Your task to perform on an android device: Open accessibility settings Image 0: 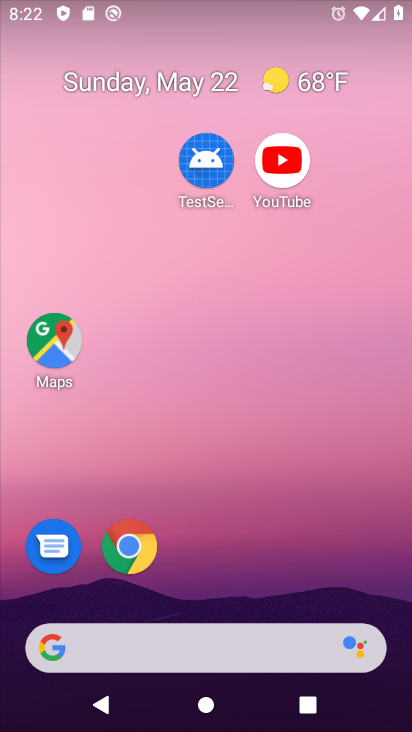
Step 0: drag from (290, 688) to (259, 265)
Your task to perform on an android device: Open accessibility settings Image 1: 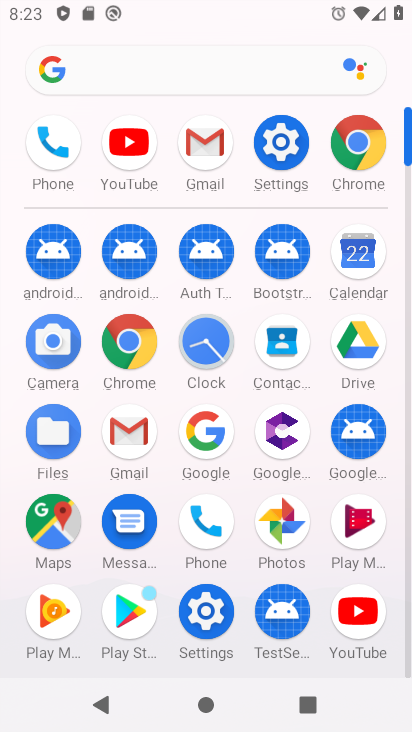
Step 1: click (267, 155)
Your task to perform on an android device: Open accessibility settings Image 2: 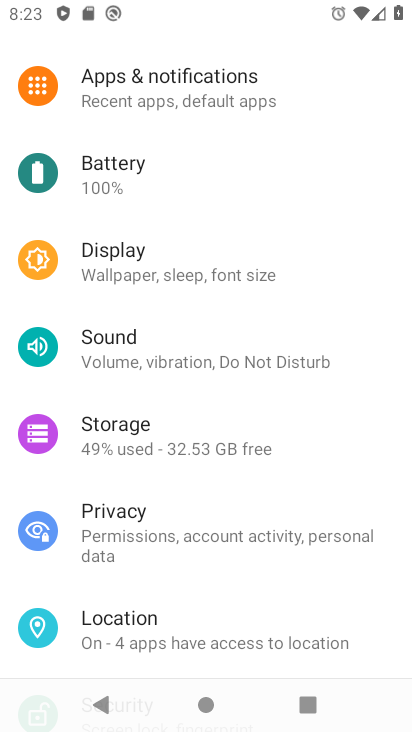
Step 2: drag from (136, 560) to (127, 233)
Your task to perform on an android device: Open accessibility settings Image 3: 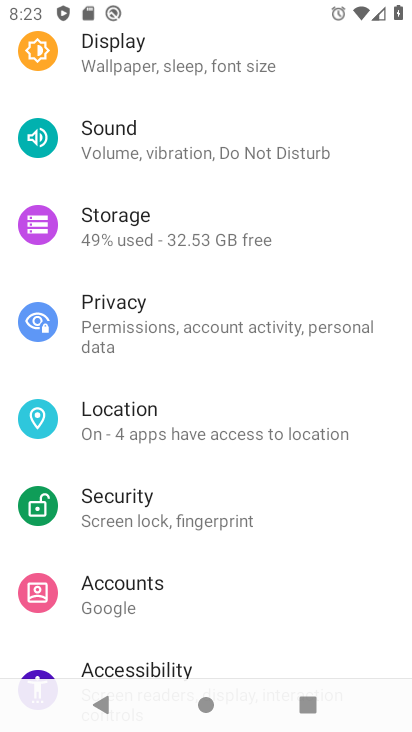
Step 3: drag from (190, 441) to (198, 179)
Your task to perform on an android device: Open accessibility settings Image 4: 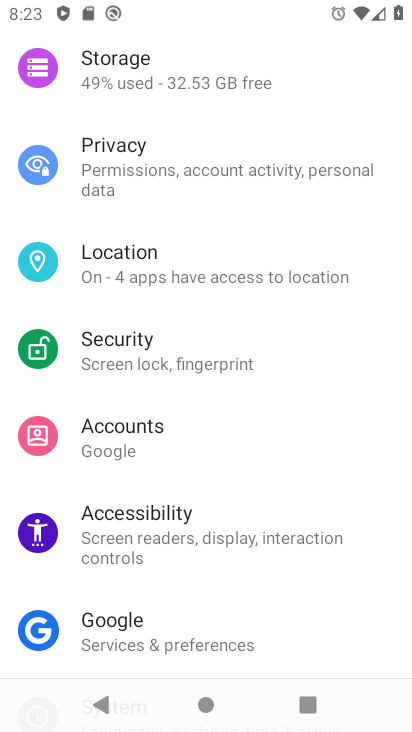
Step 4: drag from (217, 409) to (202, 61)
Your task to perform on an android device: Open accessibility settings Image 5: 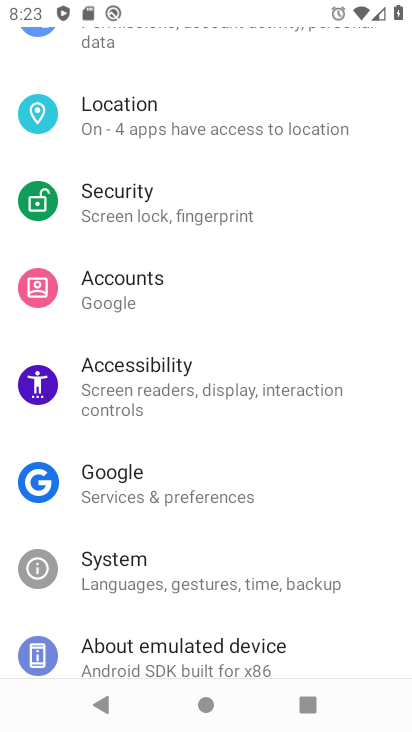
Step 5: click (107, 373)
Your task to perform on an android device: Open accessibility settings Image 6: 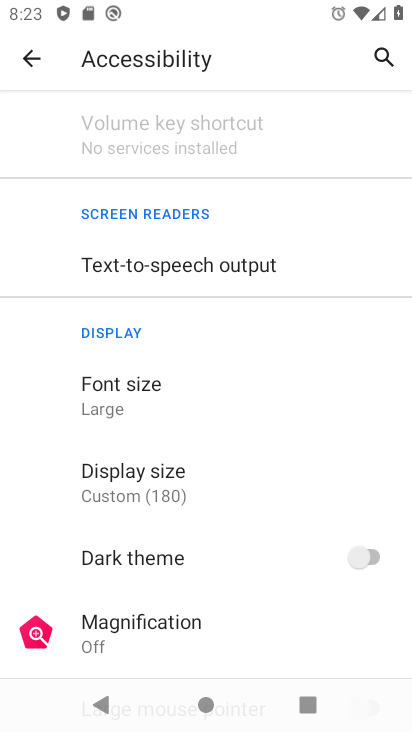
Step 6: task complete